Your task to perform on an android device: manage bookmarks in the chrome app Image 0: 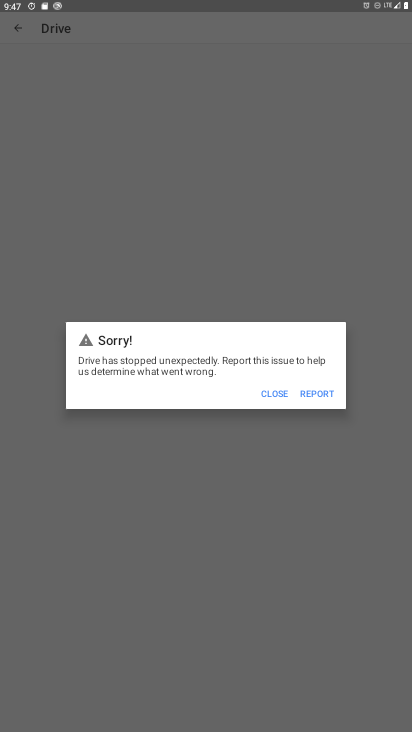
Step 0: press home button
Your task to perform on an android device: manage bookmarks in the chrome app Image 1: 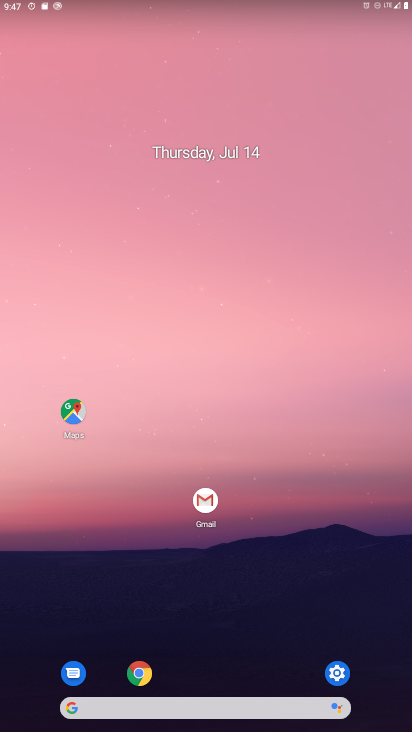
Step 1: click (150, 666)
Your task to perform on an android device: manage bookmarks in the chrome app Image 2: 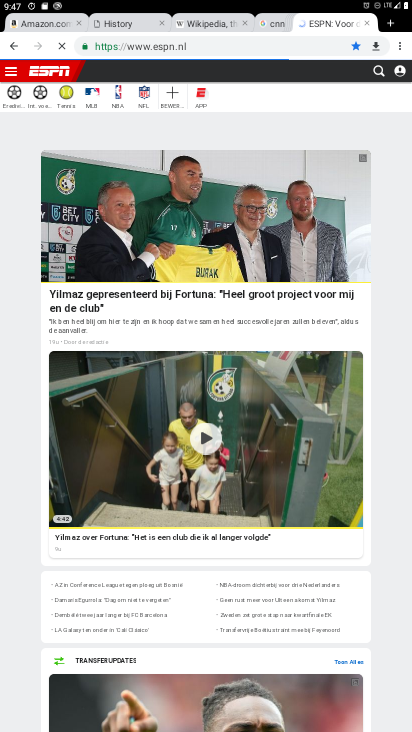
Step 2: click (398, 49)
Your task to perform on an android device: manage bookmarks in the chrome app Image 3: 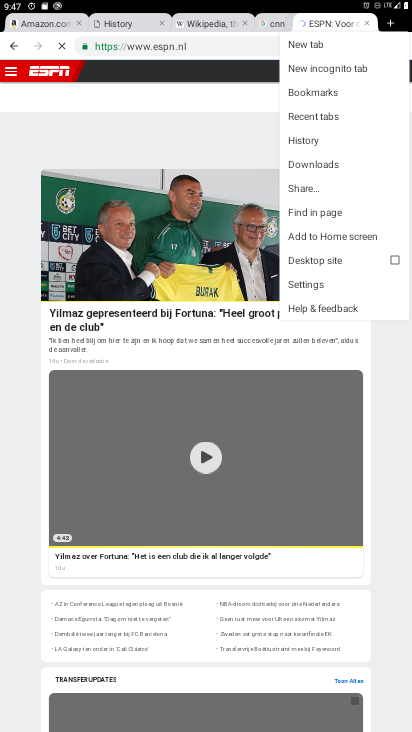
Step 3: click (334, 97)
Your task to perform on an android device: manage bookmarks in the chrome app Image 4: 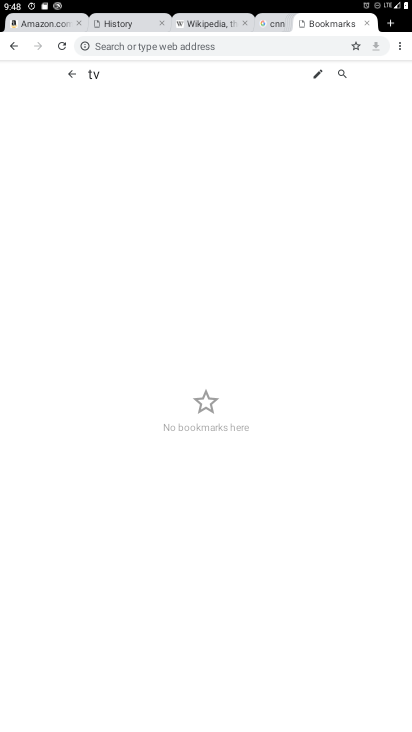
Step 4: task complete